Your task to perform on an android device: Search for "beats solo 3" on walmart.com, select the first entry, add it to the cart, then select checkout. Image 0: 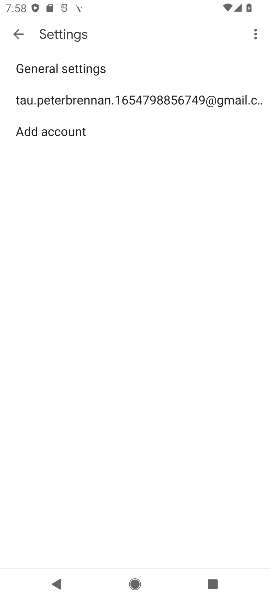
Step 0: press home button
Your task to perform on an android device: Search for "beats solo 3" on walmart.com, select the first entry, add it to the cart, then select checkout. Image 1: 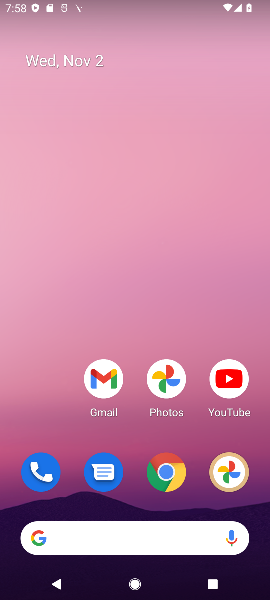
Step 1: click (164, 469)
Your task to perform on an android device: Search for "beats solo 3" on walmart.com, select the first entry, add it to the cart, then select checkout. Image 2: 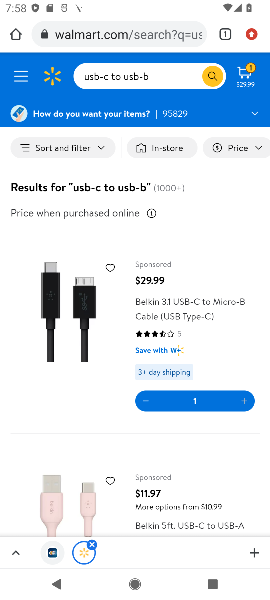
Step 2: click (173, 79)
Your task to perform on an android device: Search for "beats solo 3" on walmart.com, select the first entry, add it to the cart, then select checkout. Image 3: 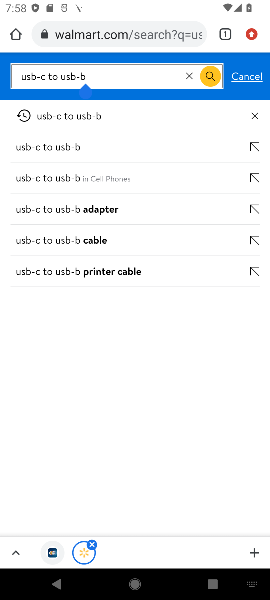
Step 3: click (189, 75)
Your task to perform on an android device: Search for "beats solo 3" on walmart.com, select the first entry, add it to the cart, then select checkout. Image 4: 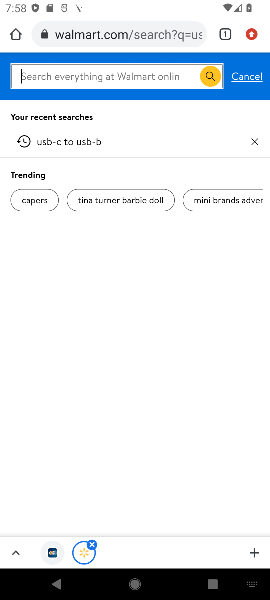
Step 4: type "beats solo 3"
Your task to perform on an android device: Search for "beats solo 3" on walmart.com, select the first entry, add it to the cart, then select checkout. Image 5: 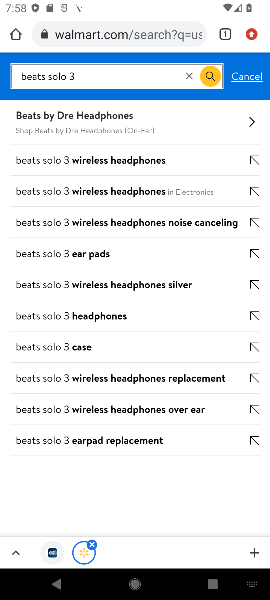
Step 5: click (54, 162)
Your task to perform on an android device: Search for "beats solo 3" on walmart.com, select the first entry, add it to the cart, then select checkout. Image 6: 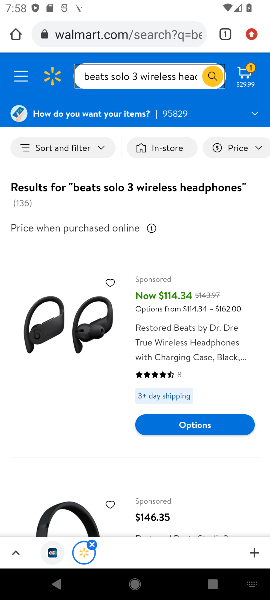
Step 6: click (181, 426)
Your task to perform on an android device: Search for "beats solo 3" on walmart.com, select the first entry, add it to the cart, then select checkout. Image 7: 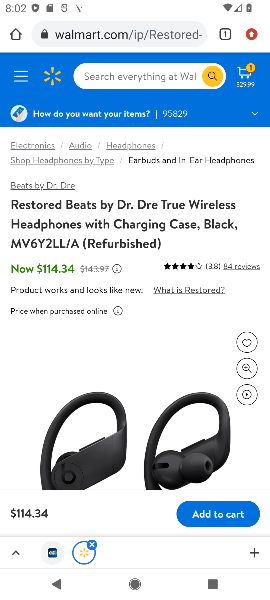
Step 7: task complete